Your task to perform on an android device: Search for Italian restaurants on Maps Image 0: 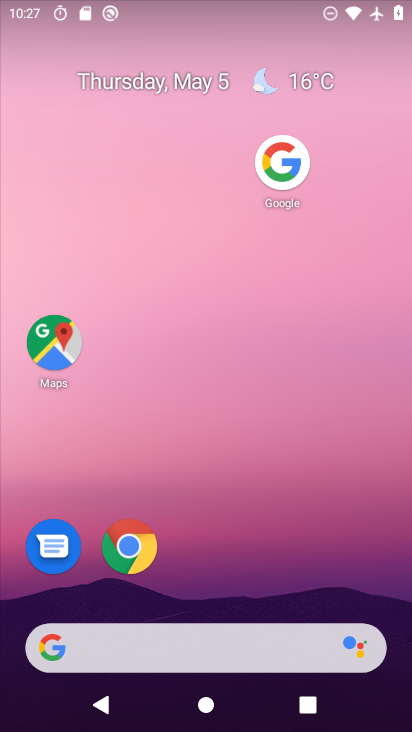
Step 0: drag from (181, 612) to (278, 123)
Your task to perform on an android device: Search for Italian restaurants on Maps Image 1: 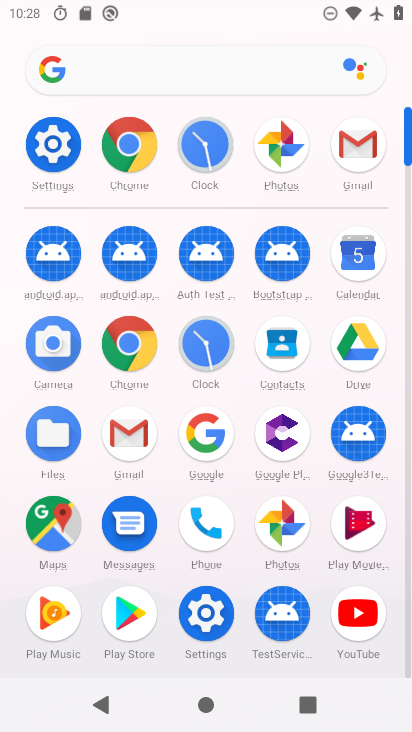
Step 1: click (56, 530)
Your task to perform on an android device: Search for Italian restaurants on Maps Image 2: 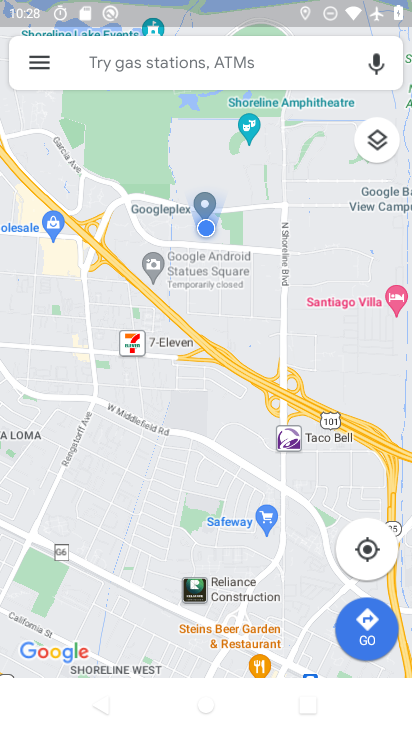
Step 2: click (191, 62)
Your task to perform on an android device: Search for Italian restaurants on Maps Image 3: 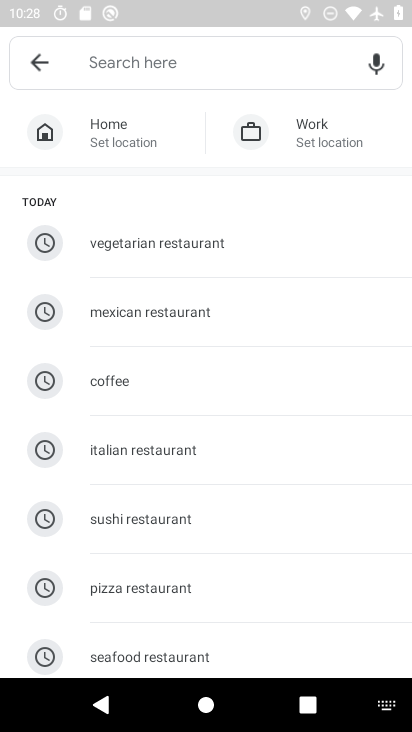
Step 3: click (172, 449)
Your task to perform on an android device: Search for Italian restaurants on Maps Image 4: 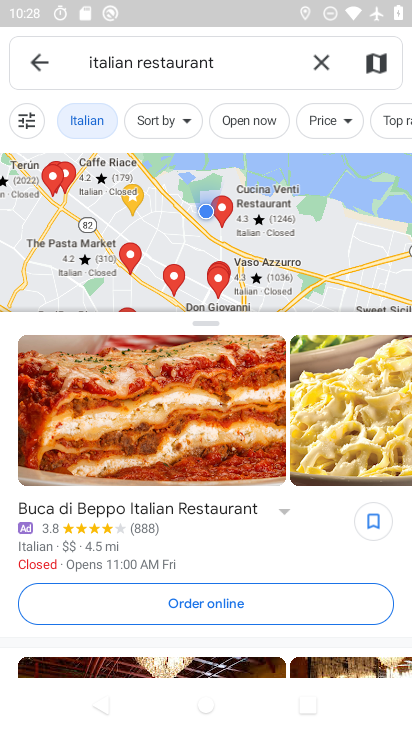
Step 4: task complete